Your task to perform on an android device: turn pop-ups on in chrome Image 0: 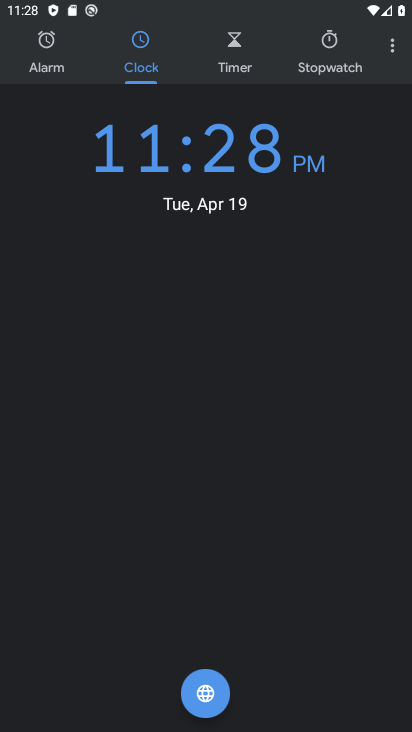
Step 0: press home button
Your task to perform on an android device: turn pop-ups on in chrome Image 1: 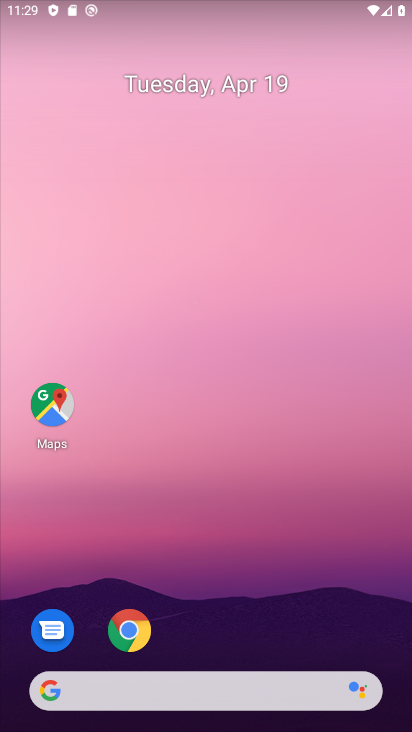
Step 1: drag from (257, 645) to (290, 168)
Your task to perform on an android device: turn pop-ups on in chrome Image 2: 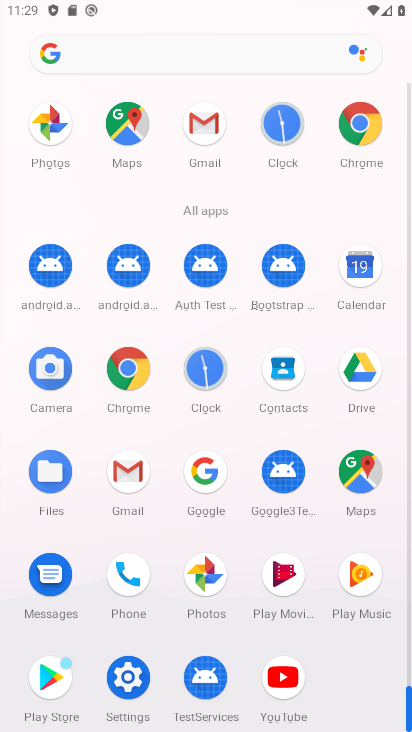
Step 2: click (138, 369)
Your task to perform on an android device: turn pop-ups on in chrome Image 3: 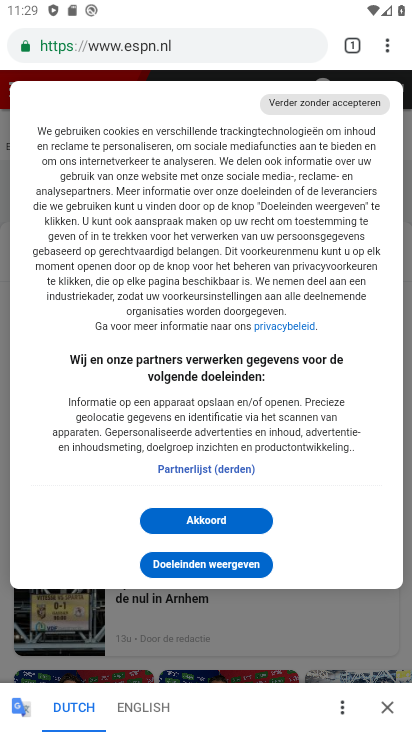
Step 3: drag from (383, 47) to (234, 547)
Your task to perform on an android device: turn pop-ups on in chrome Image 4: 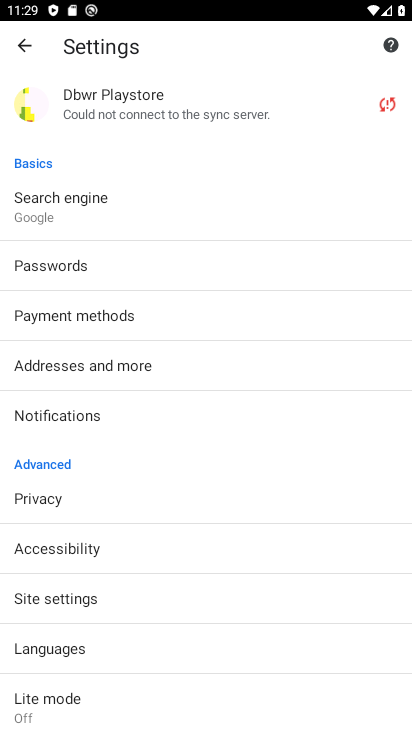
Step 4: drag from (217, 599) to (300, 242)
Your task to perform on an android device: turn pop-ups on in chrome Image 5: 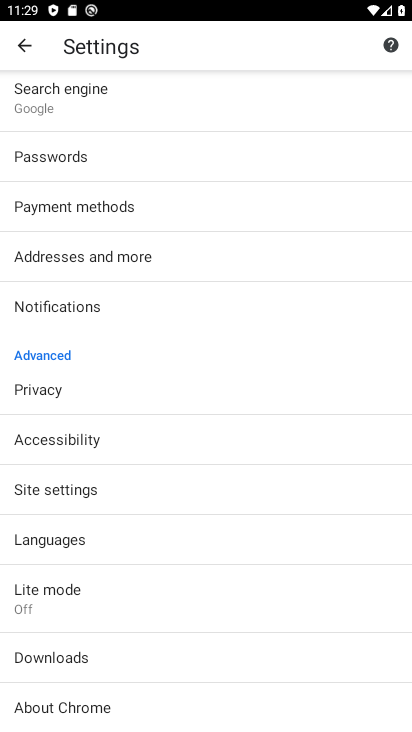
Step 5: click (88, 485)
Your task to perform on an android device: turn pop-ups on in chrome Image 6: 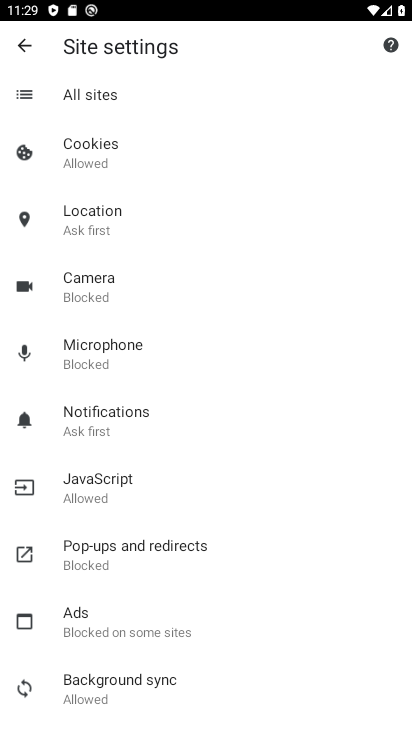
Step 6: click (157, 546)
Your task to perform on an android device: turn pop-ups on in chrome Image 7: 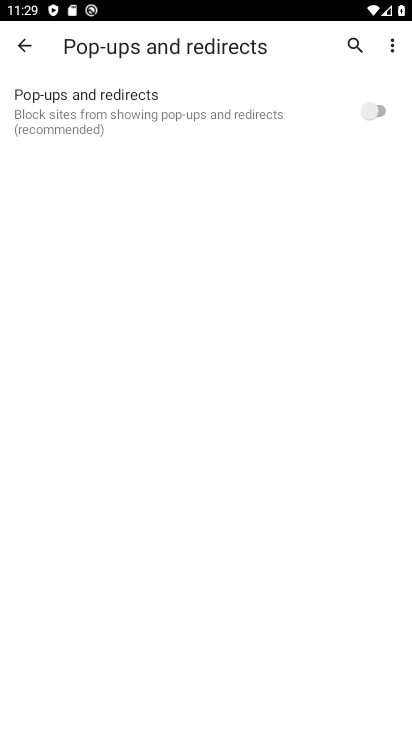
Step 7: click (379, 109)
Your task to perform on an android device: turn pop-ups on in chrome Image 8: 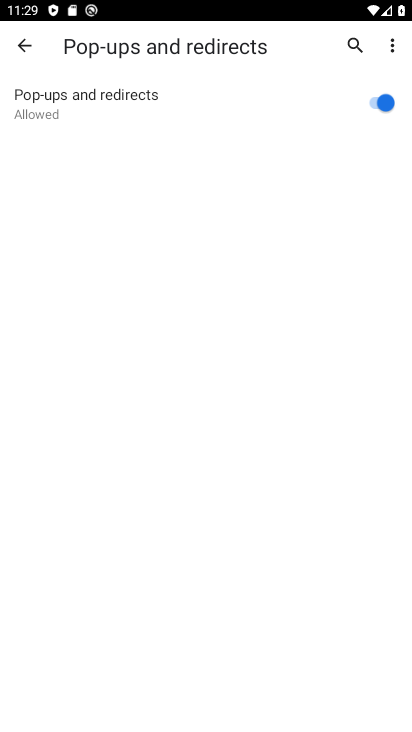
Step 8: task complete